Your task to perform on an android device: open device folders in google photos Image 0: 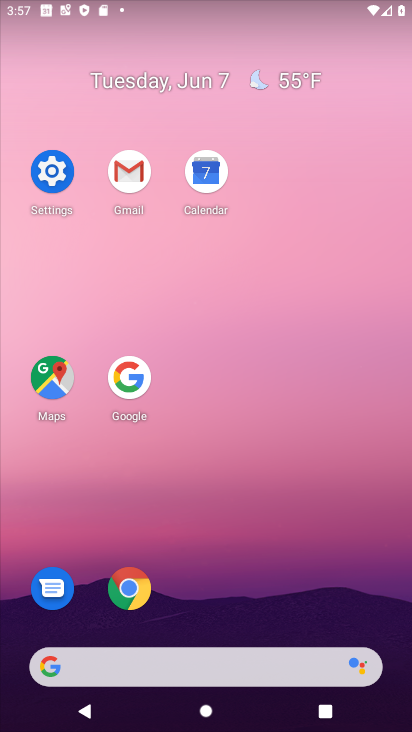
Step 0: drag from (270, 597) to (270, 197)
Your task to perform on an android device: open device folders in google photos Image 1: 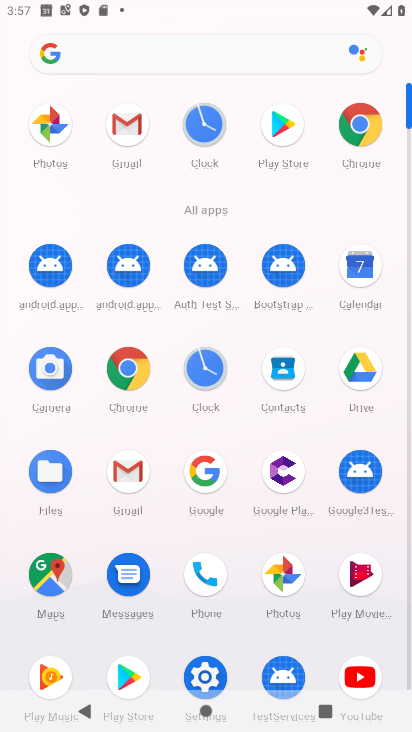
Step 1: click (300, 583)
Your task to perform on an android device: open device folders in google photos Image 2: 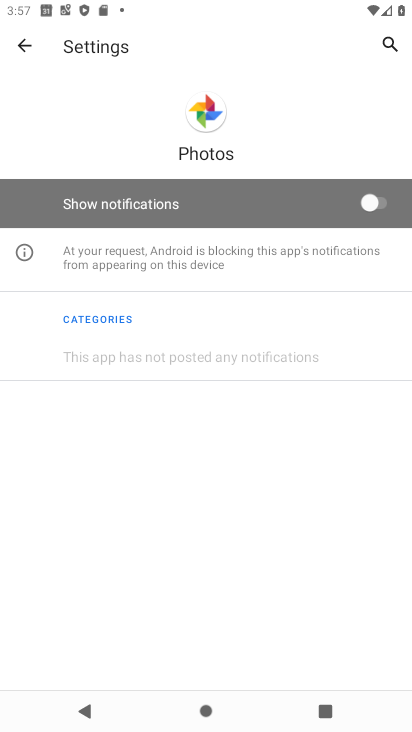
Step 2: click (34, 58)
Your task to perform on an android device: open device folders in google photos Image 3: 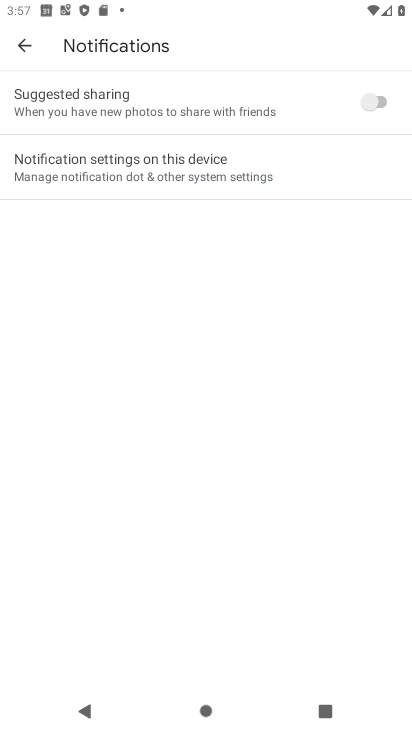
Step 3: click (34, 58)
Your task to perform on an android device: open device folders in google photos Image 4: 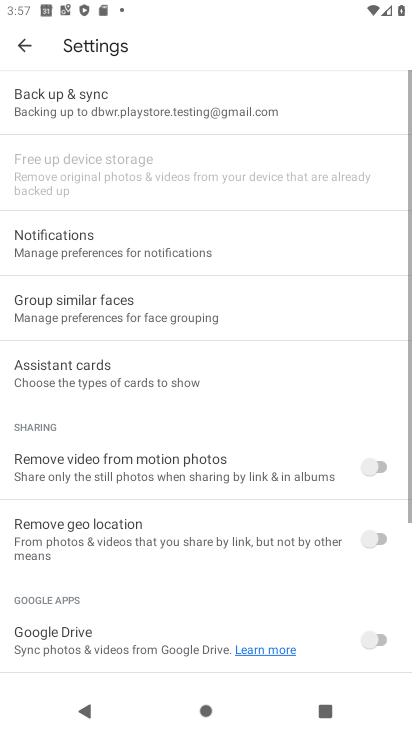
Step 4: click (34, 58)
Your task to perform on an android device: open device folders in google photos Image 5: 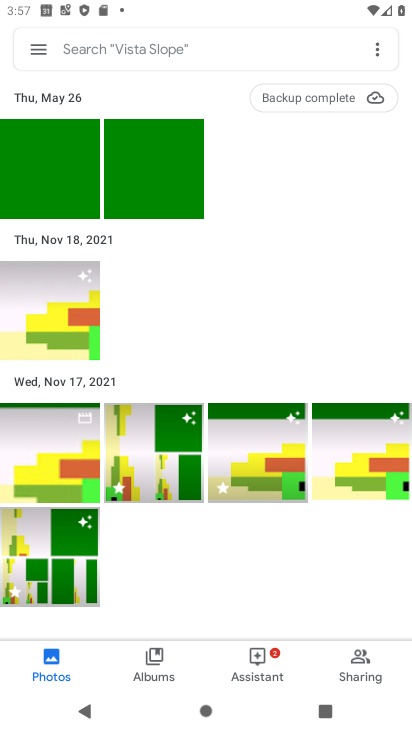
Step 5: click (34, 58)
Your task to perform on an android device: open device folders in google photos Image 6: 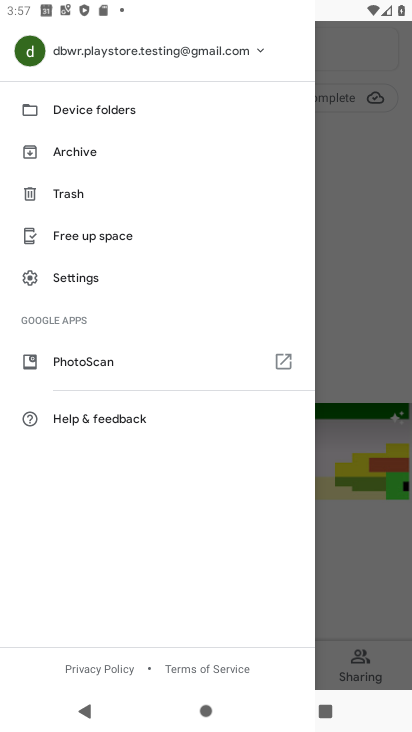
Step 6: click (114, 108)
Your task to perform on an android device: open device folders in google photos Image 7: 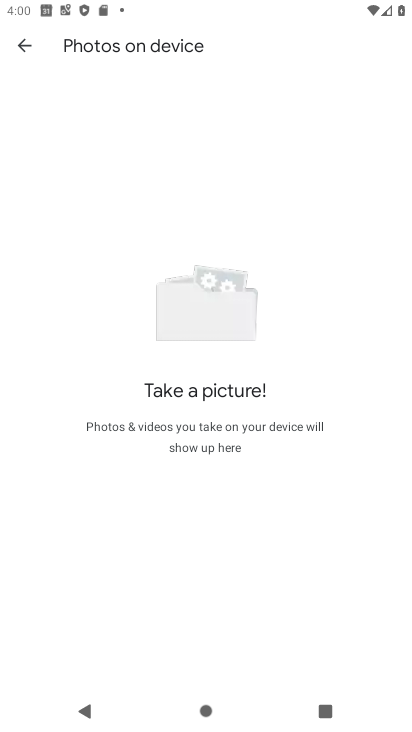
Step 7: task complete